Your task to perform on an android device: turn notification dots off Image 0: 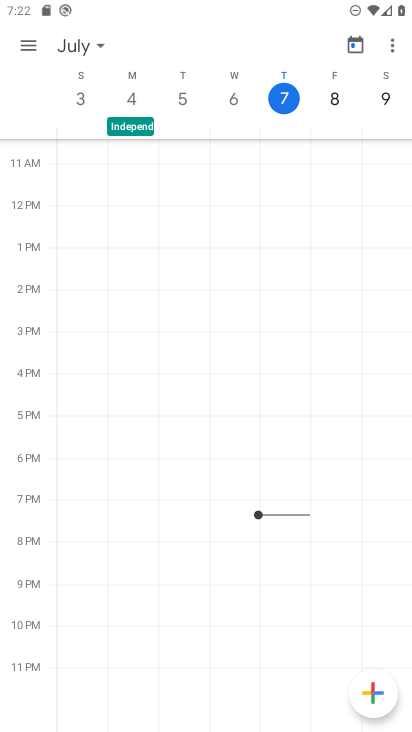
Step 0: press home button
Your task to perform on an android device: turn notification dots off Image 1: 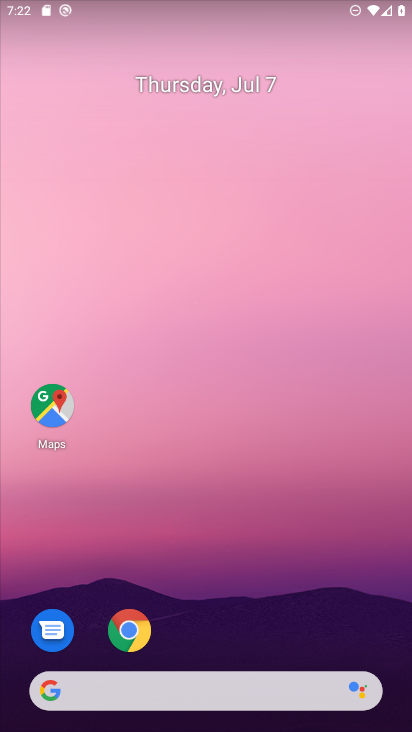
Step 1: drag from (286, 624) to (191, 92)
Your task to perform on an android device: turn notification dots off Image 2: 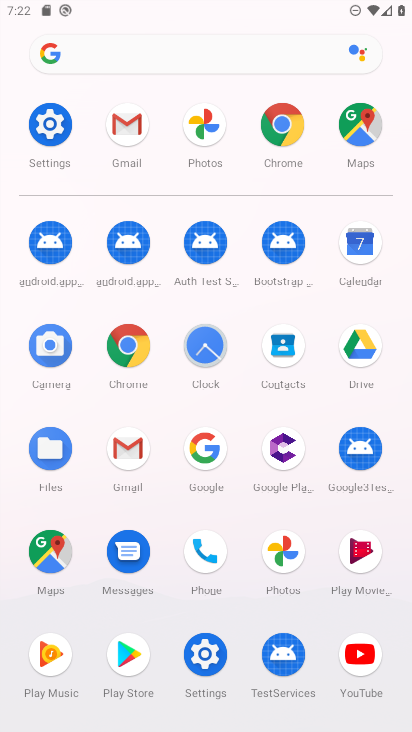
Step 2: click (48, 126)
Your task to perform on an android device: turn notification dots off Image 3: 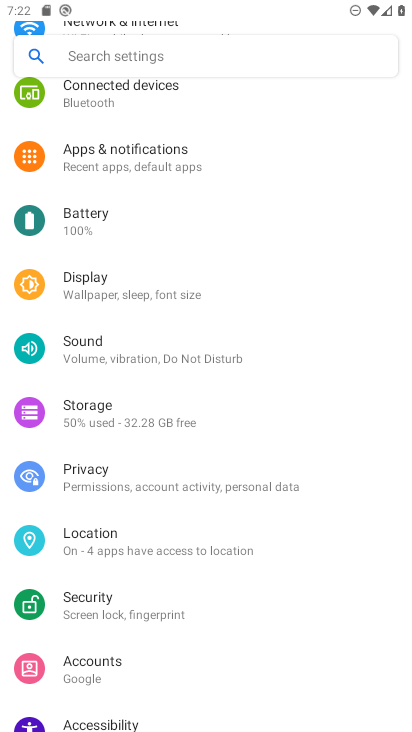
Step 3: click (120, 152)
Your task to perform on an android device: turn notification dots off Image 4: 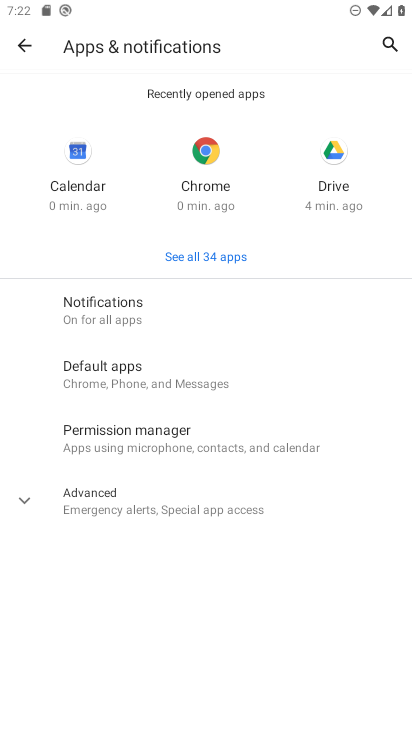
Step 4: click (120, 308)
Your task to perform on an android device: turn notification dots off Image 5: 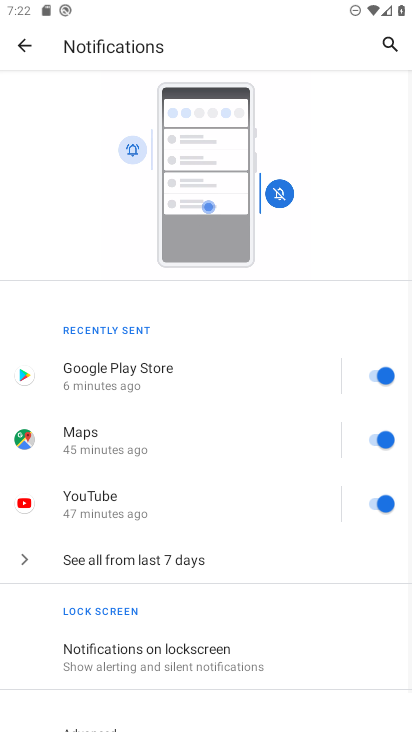
Step 5: drag from (303, 637) to (280, 266)
Your task to perform on an android device: turn notification dots off Image 6: 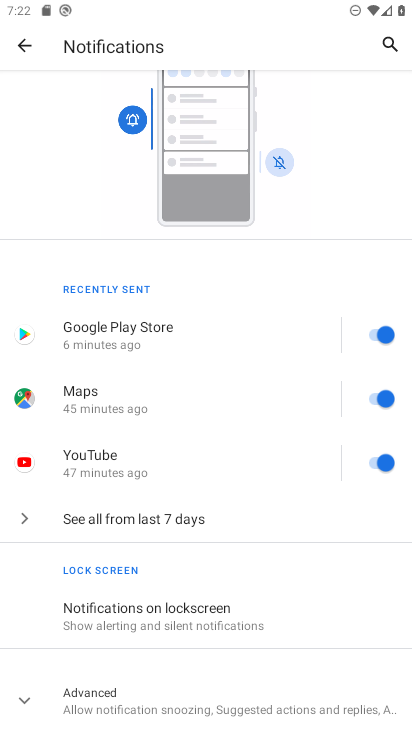
Step 6: click (23, 702)
Your task to perform on an android device: turn notification dots off Image 7: 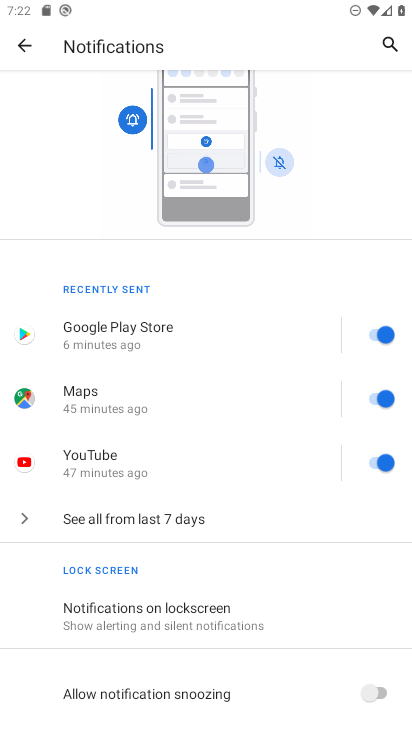
Step 7: task complete